Your task to perform on an android device: manage bookmarks in the chrome app Image 0: 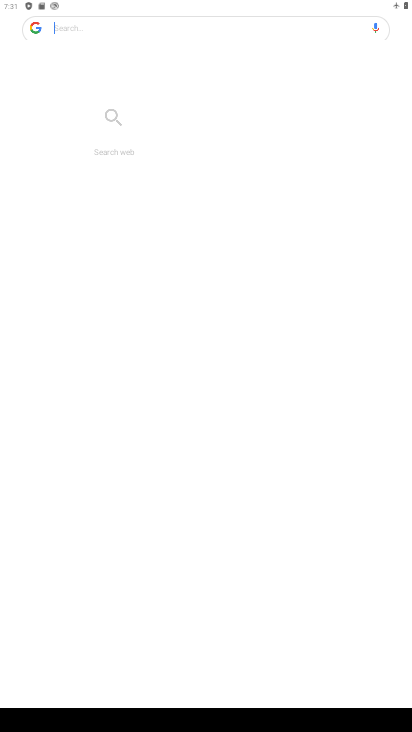
Step 0: press home button
Your task to perform on an android device: manage bookmarks in the chrome app Image 1: 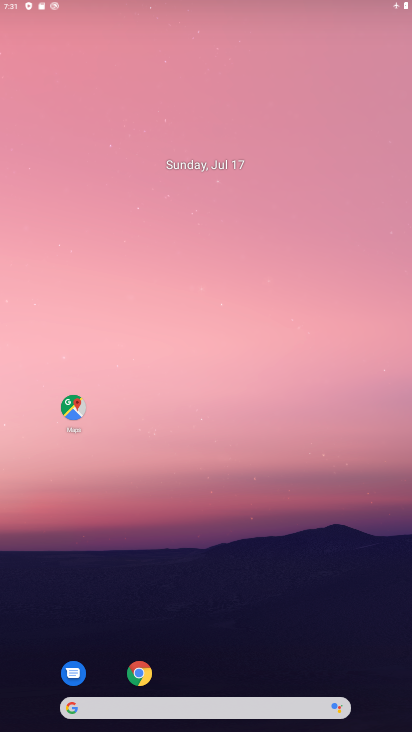
Step 1: drag from (234, 669) to (361, 15)
Your task to perform on an android device: manage bookmarks in the chrome app Image 2: 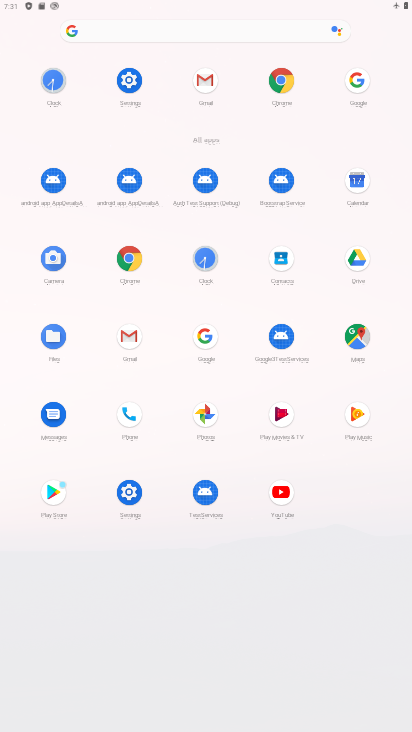
Step 2: click (284, 83)
Your task to perform on an android device: manage bookmarks in the chrome app Image 3: 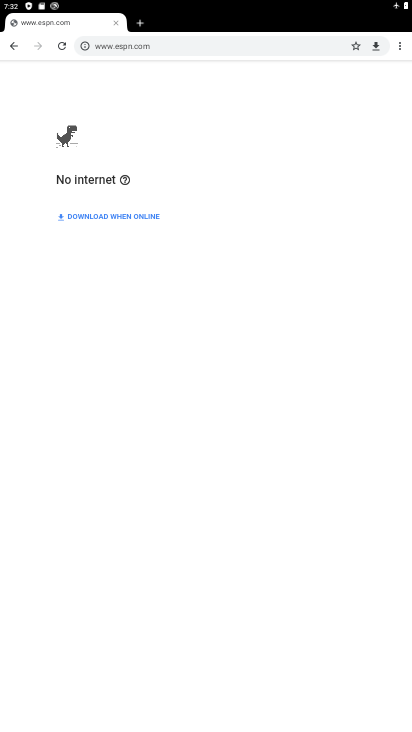
Step 3: task complete